Your task to perform on an android device: find which apps use the phone's location Image 0: 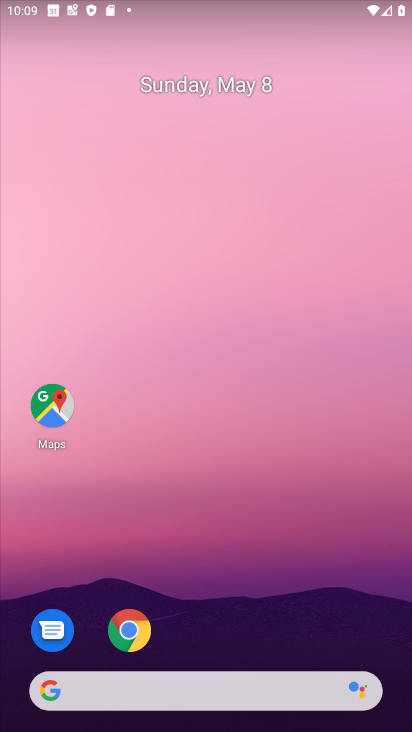
Step 0: drag from (193, 731) to (187, 155)
Your task to perform on an android device: find which apps use the phone's location Image 1: 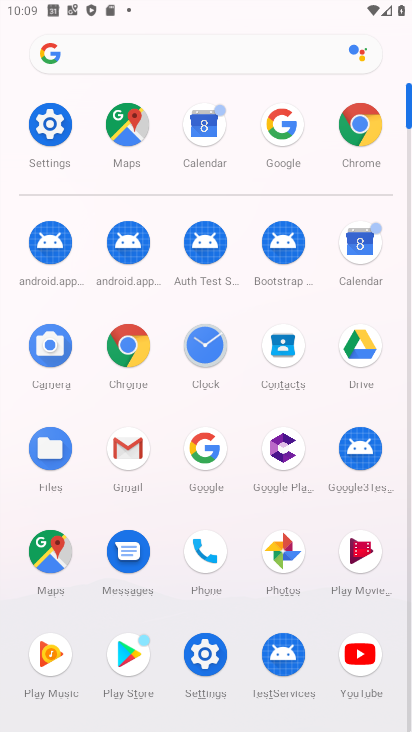
Step 1: click (209, 650)
Your task to perform on an android device: find which apps use the phone's location Image 2: 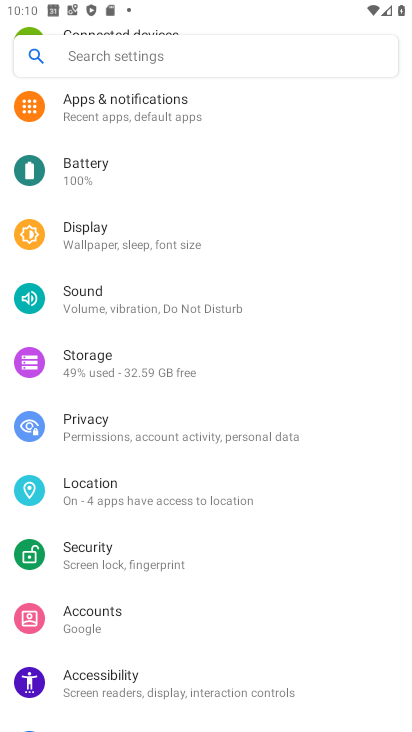
Step 2: click (93, 491)
Your task to perform on an android device: find which apps use the phone's location Image 3: 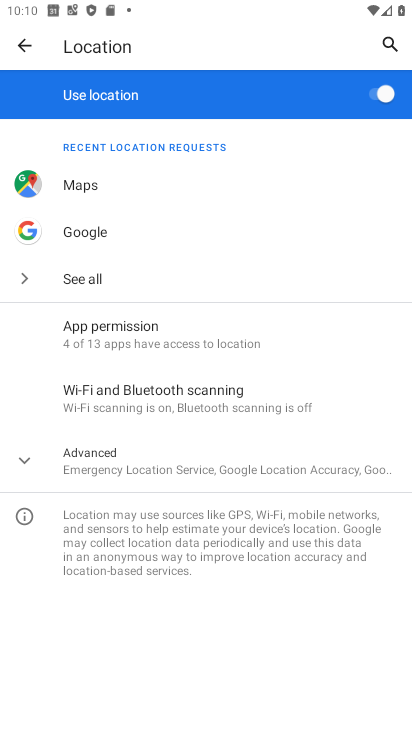
Step 3: click (130, 342)
Your task to perform on an android device: find which apps use the phone's location Image 4: 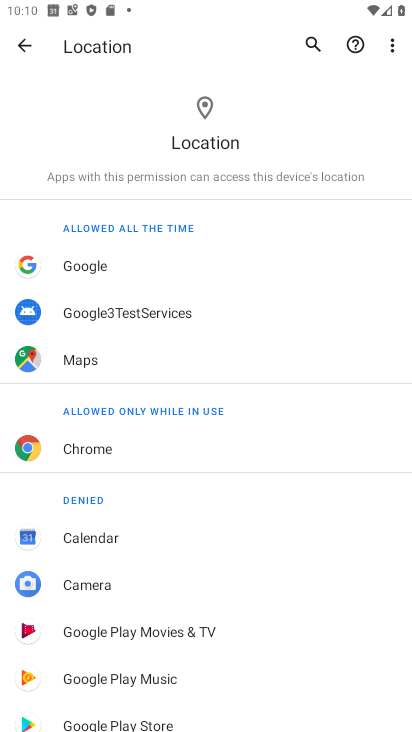
Step 4: task complete